Your task to perform on an android device: open chrome privacy settings Image 0: 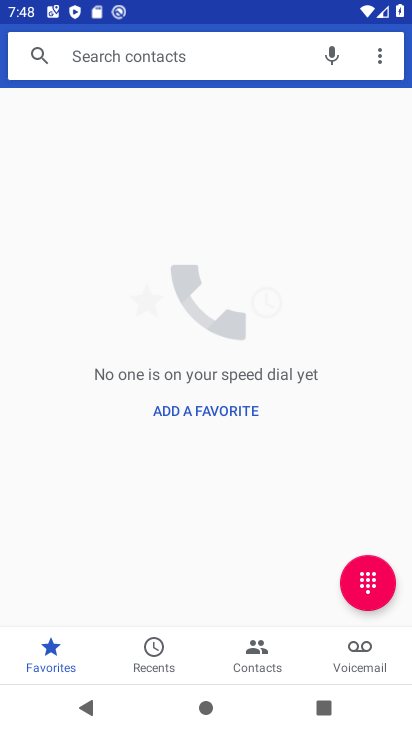
Step 0: press home button
Your task to perform on an android device: open chrome privacy settings Image 1: 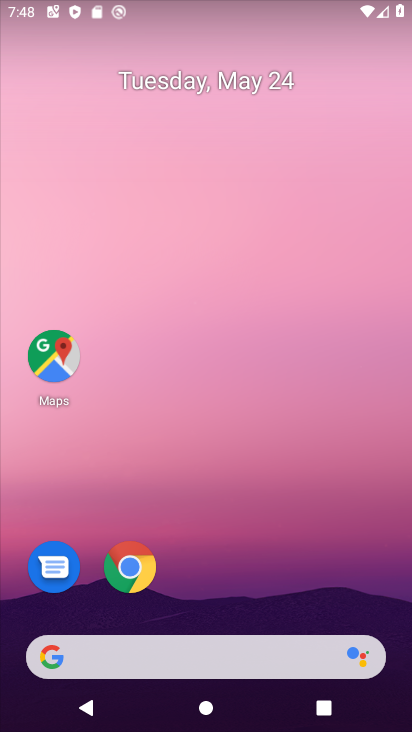
Step 1: click (123, 570)
Your task to perform on an android device: open chrome privacy settings Image 2: 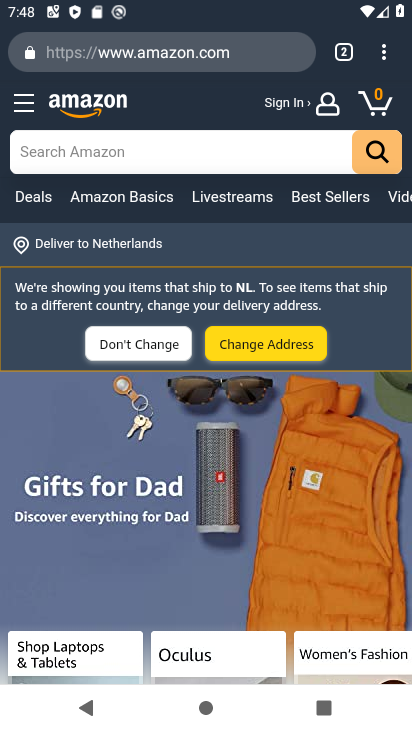
Step 2: click (388, 67)
Your task to perform on an android device: open chrome privacy settings Image 3: 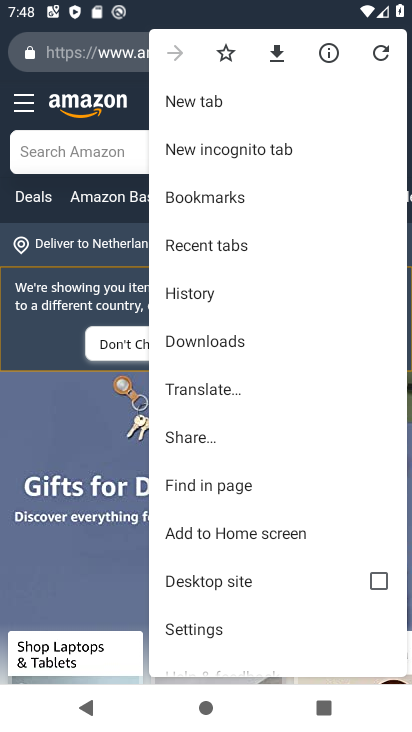
Step 3: drag from (215, 650) to (239, 189)
Your task to perform on an android device: open chrome privacy settings Image 4: 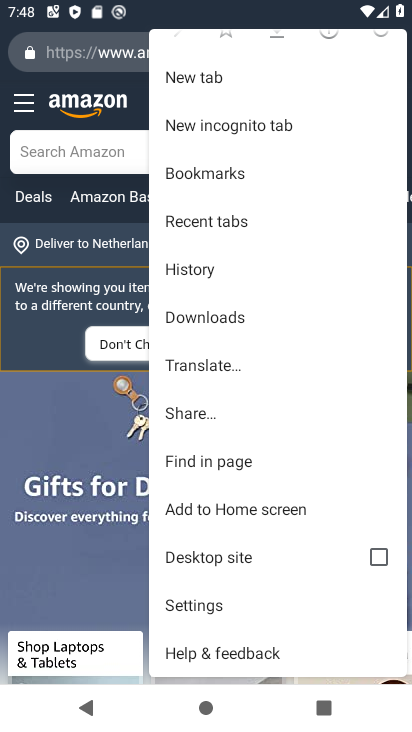
Step 4: drag from (262, 624) to (229, 74)
Your task to perform on an android device: open chrome privacy settings Image 5: 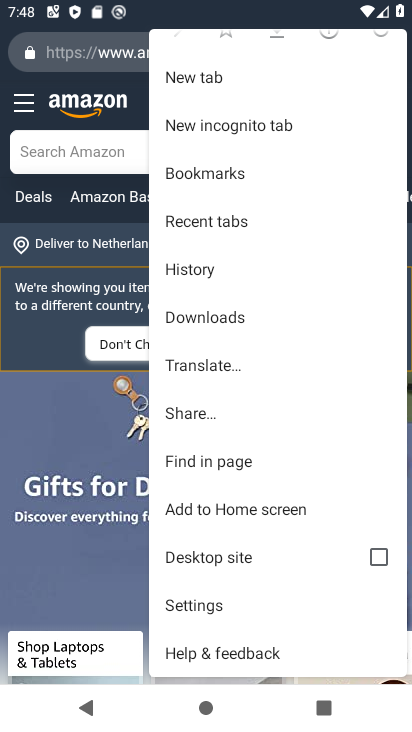
Step 5: click (238, 596)
Your task to perform on an android device: open chrome privacy settings Image 6: 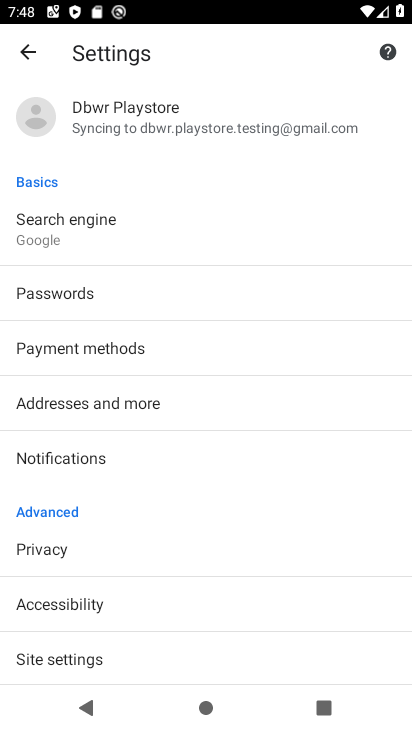
Step 6: click (70, 533)
Your task to perform on an android device: open chrome privacy settings Image 7: 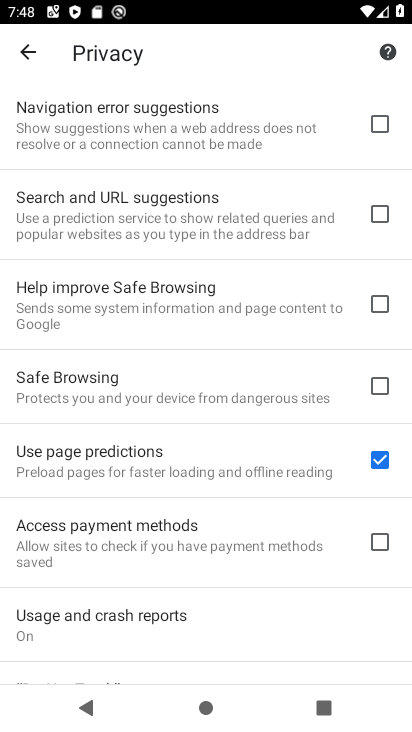
Step 7: task complete